Your task to perform on an android device: What's the weather? Image 0: 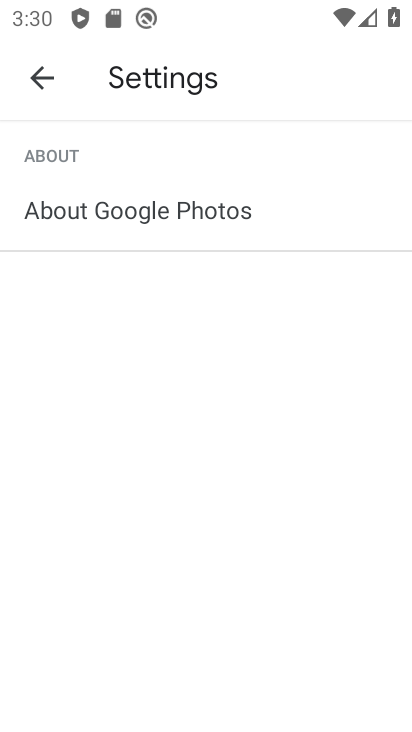
Step 0: press home button
Your task to perform on an android device: What's the weather? Image 1: 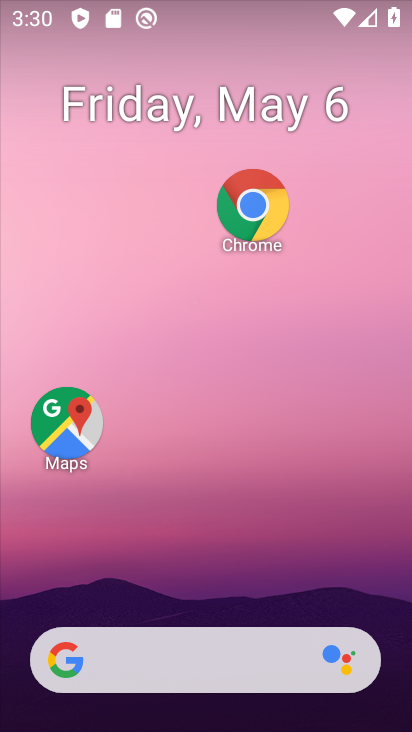
Step 1: drag from (162, 636) to (83, 0)
Your task to perform on an android device: What's the weather? Image 2: 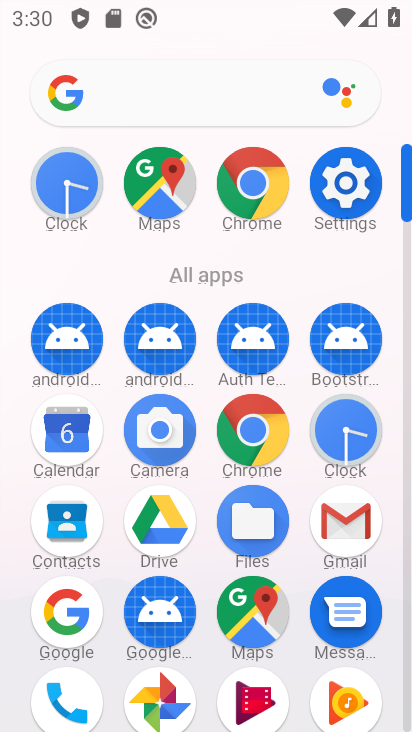
Step 2: drag from (216, 658) to (203, 57)
Your task to perform on an android device: What's the weather? Image 3: 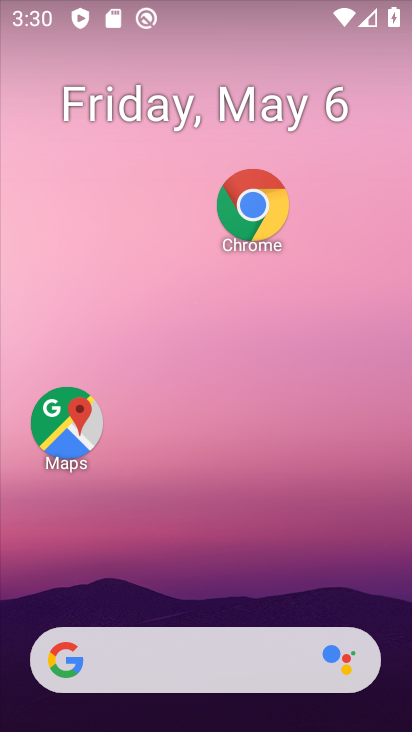
Step 3: click (197, 653)
Your task to perform on an android device: What's the weather? Image 4: 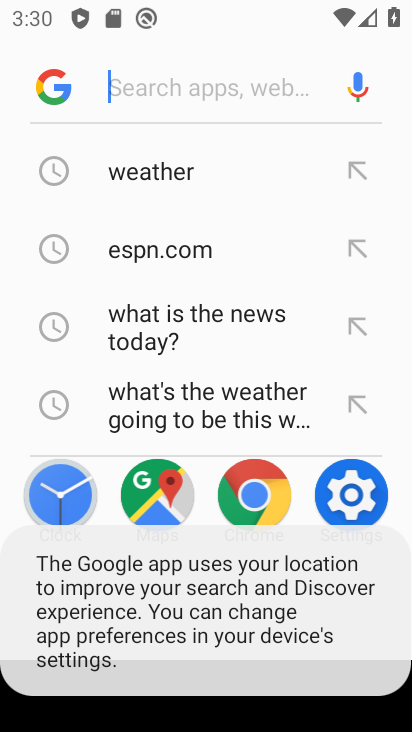
Step 4: click (185, 166)
Your task to perform on an android device: What's the weather? Image 5: 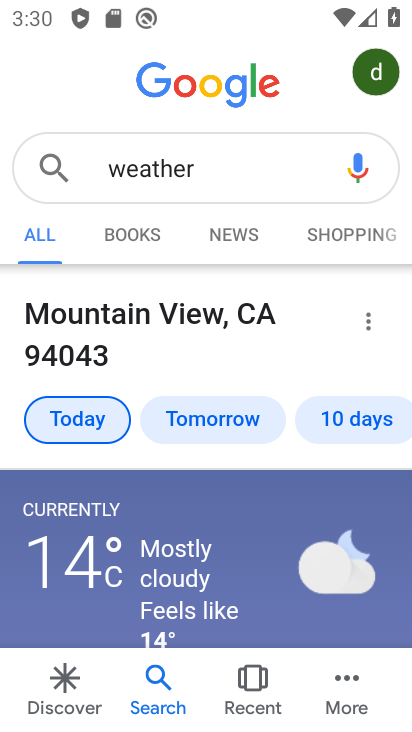
Step 5: task complete